Your task to perform on an android device: Show me recent news Image 0: 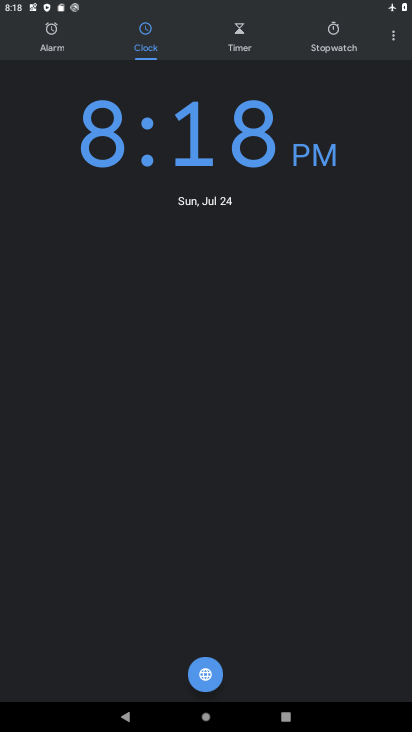
Step 0: press home button
Your task to perform on an android device: Show me recent news Image 1: 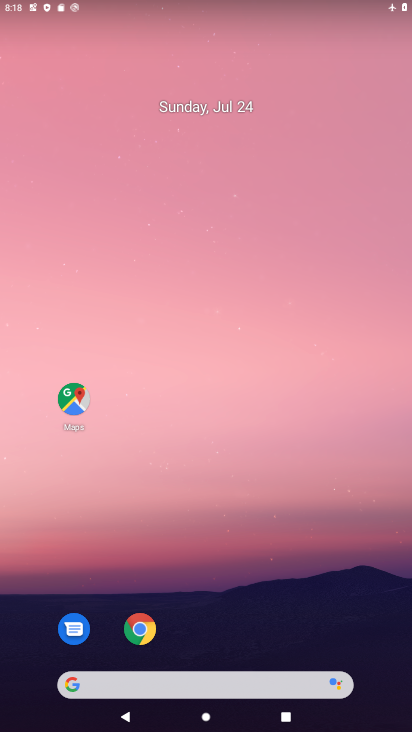
Step 1: drag from (232, 682) to (227, 170)
Your task to perform on an android device: Show me recent news Image 2: 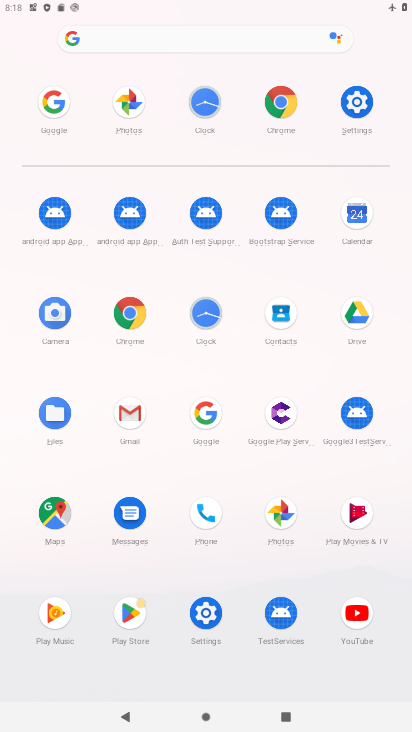
Step 2: click (209, 413)
Your task to perform on an android device: Show me recent news Image 3: 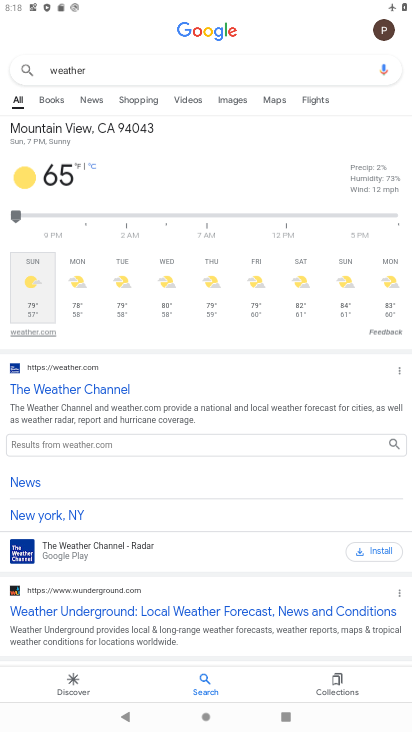
Step 3: click (267, 76)
Your task to perform on an android device: Show me recent news Image 4: 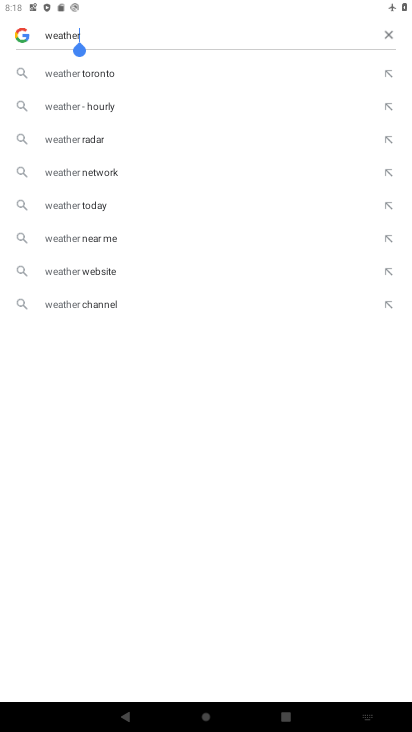
Step 4: click (386, 37)
Your task to perform on an android device: Show me recent news Image 5: 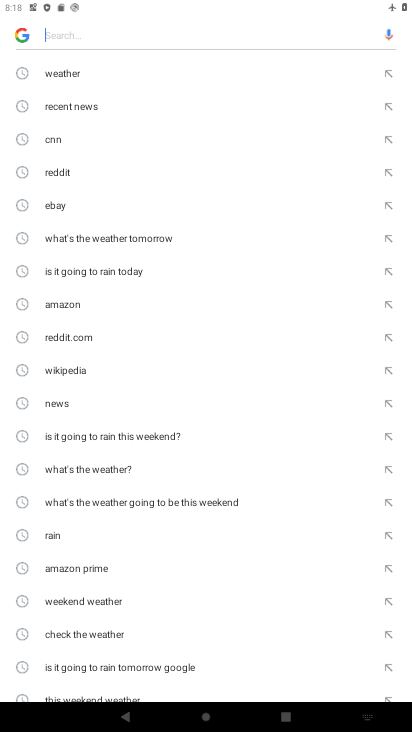
Step 5: click (126, 110)
Your task to perform on an android device: Show me recent news Image 6: 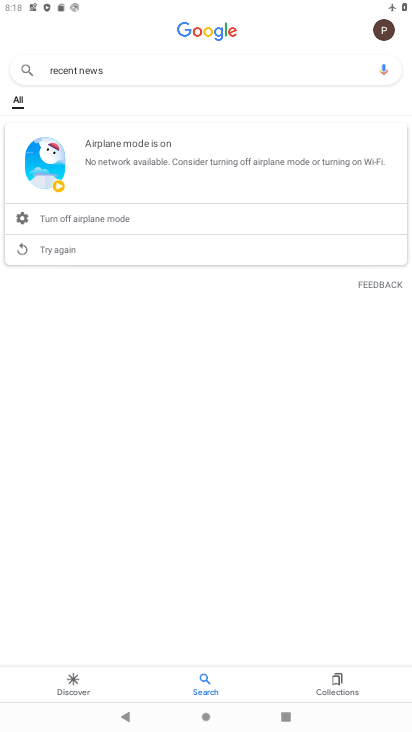
Step 6: task complete